Your task to perform on an android device: Search for flights from Buenos aires to Helsinki Image 0: 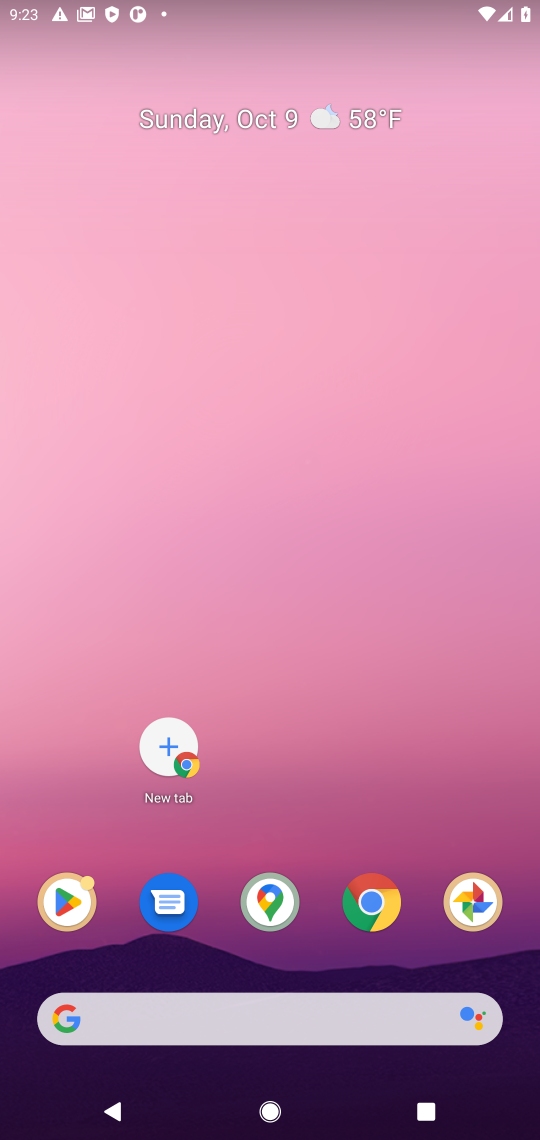
Step 0: click (371, 901)
Your task to perform on an android device: Search for flights from Buenos aires to Helsinki Image 1: 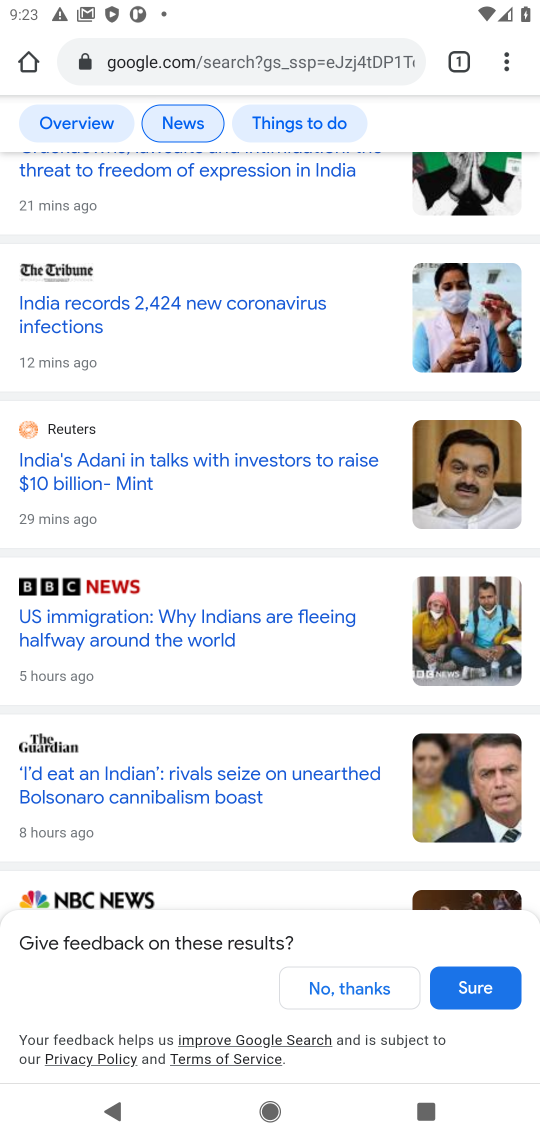
Step 1: click (349, 65)
Your task to perform on an android device: Search for flights from Buenos aires to Helsinki Image 2: 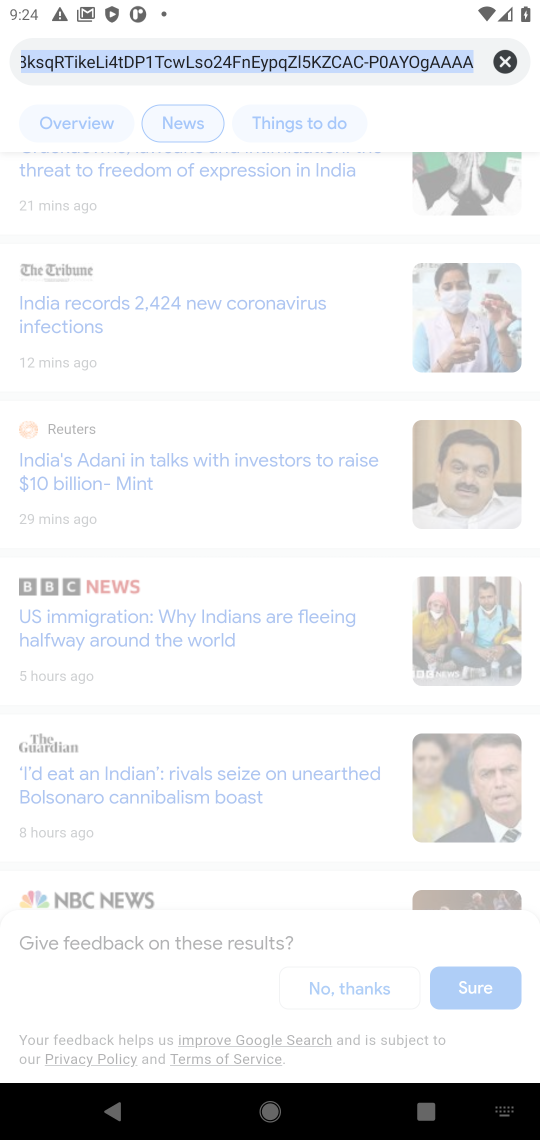
Step 2: type "flights from Buenos aires to Helsinki"
Your task to perform on an android device: Search for flights from Buenos aires to Helsinki Image 3: 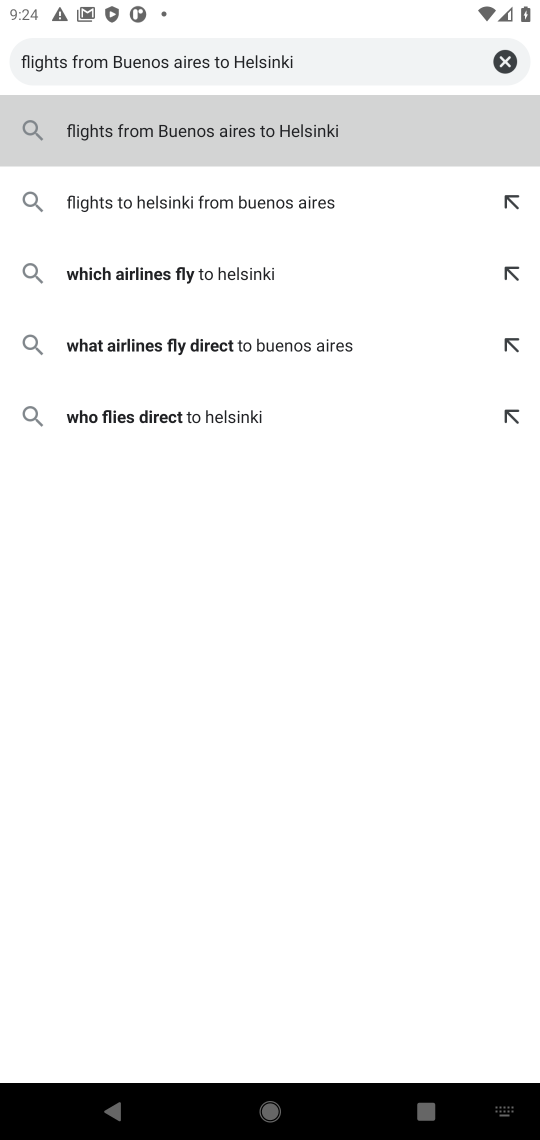
Step 3: type ""
Your task to perform on an android device: Search for flights from Buenos aires to Helsinki Image 4: 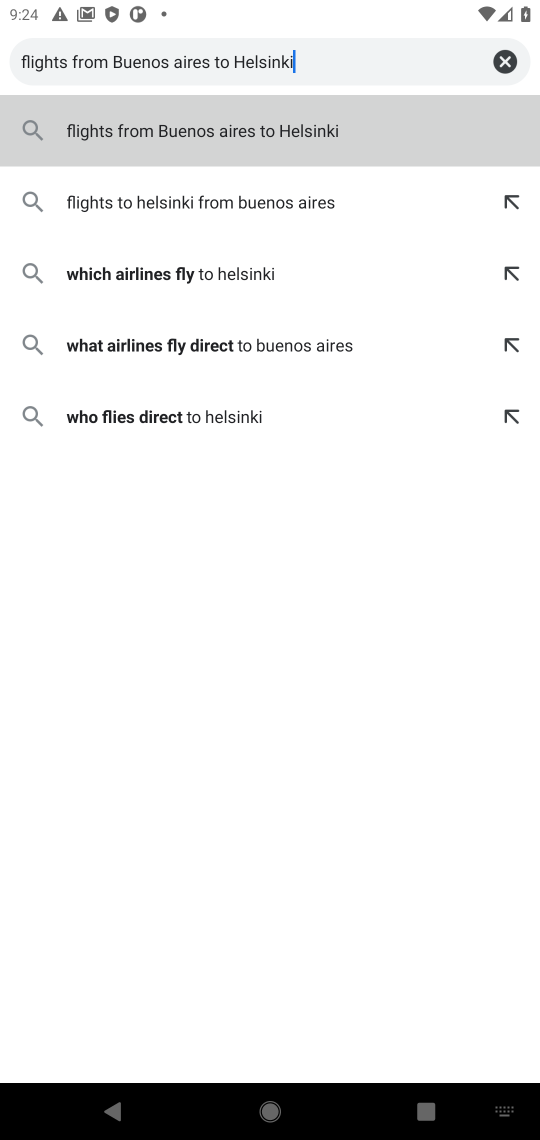
Step 4: click (287, 148)
Your task to perform on an android device: Search for flights from Buenos aires to Helsinki Image 5: 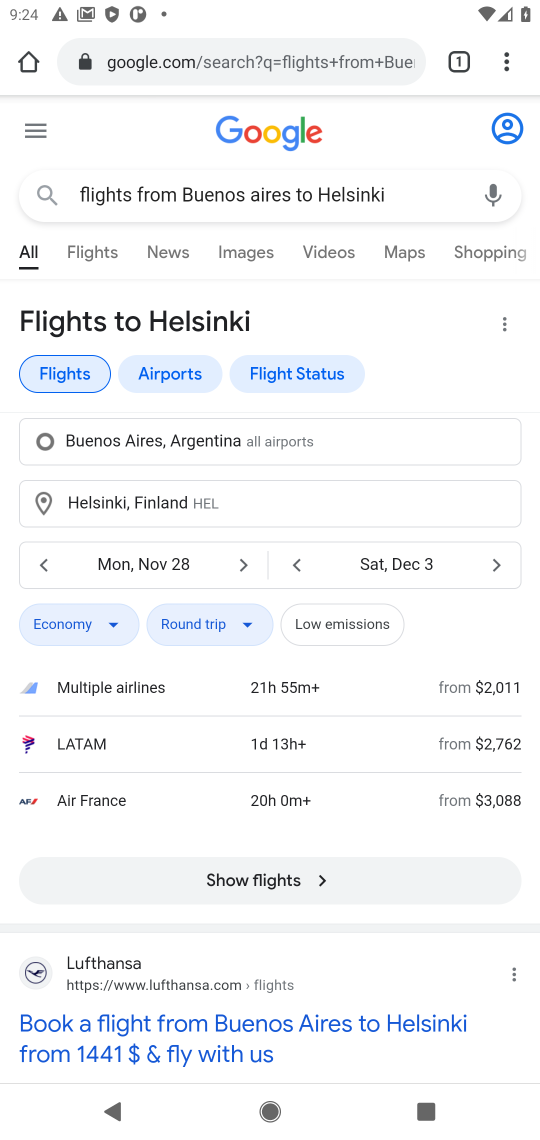
Step 5: click (228, 876)
Your task to perform on an android device: Search for flights from Buenos aires to Helsinki Image 6: 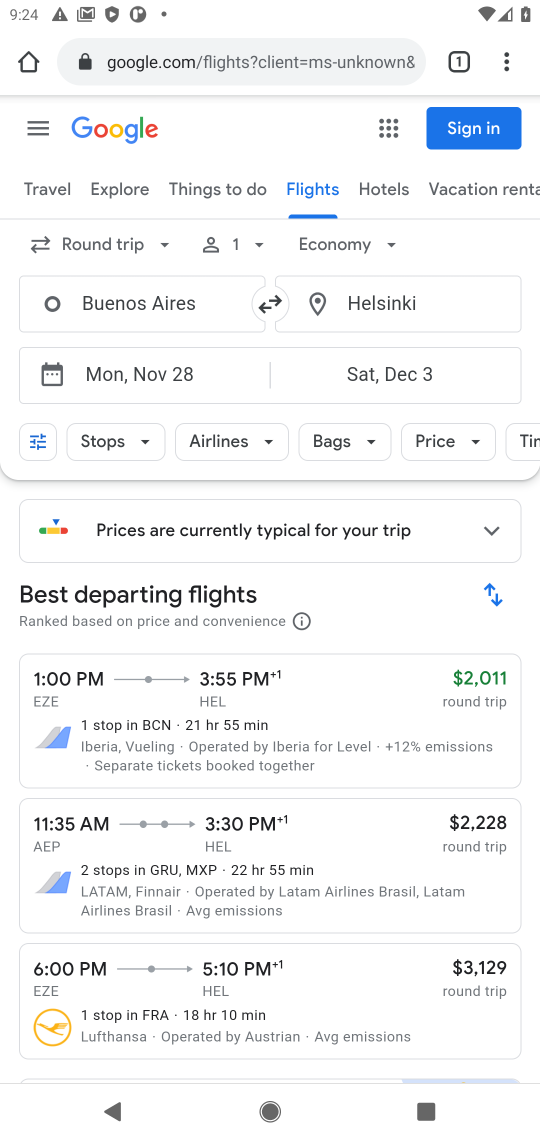
Step 6: task complete